Your task to perform on an android device: Show me recent news Image 0: 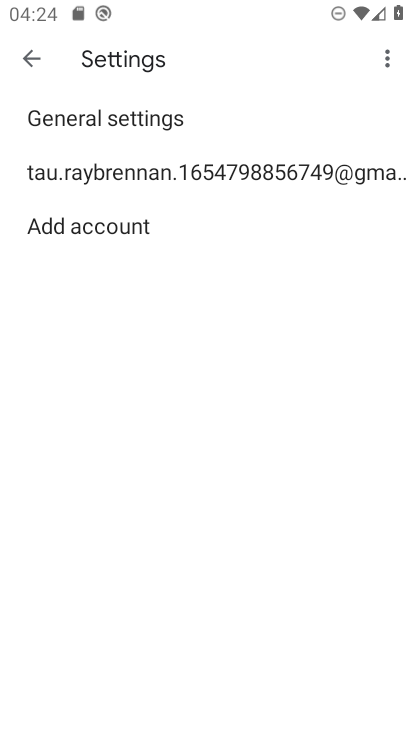
Step 0: press home button
Your task to perform on an android device: Show me recent news Image 1: 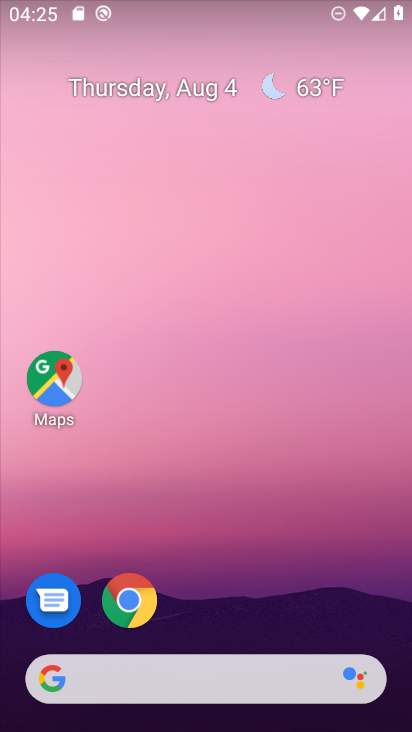
Step 1: drag from (287, 583) to (272, 96)
Your task to perform on an android device: Show me recent news Image 2: 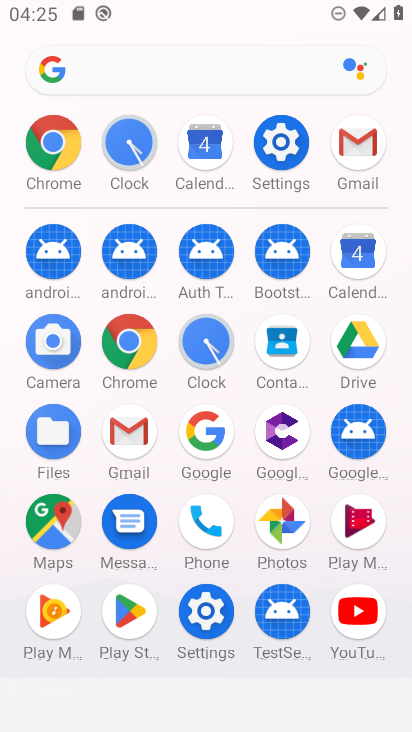
Step 2: click (118, 336)
Your task to perform on an android device: Show me recent news Image 3: 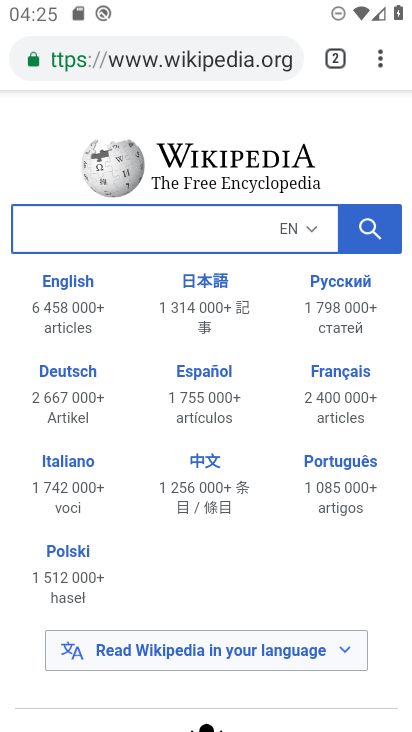
Step 3: click (211, 55)
Your task to perform on an android device: Show me recent news Image 4: 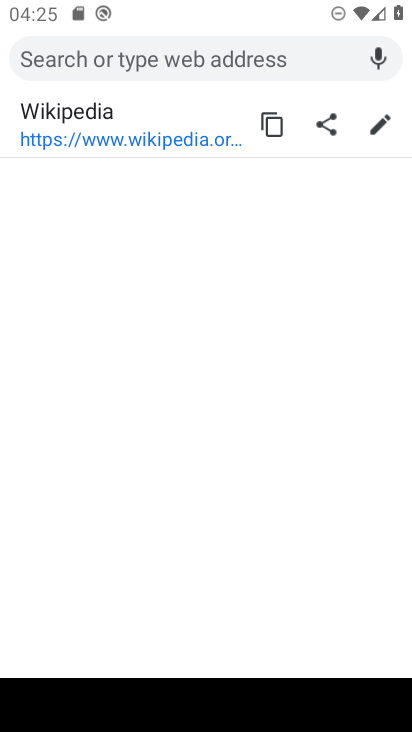
Step 4: type "news"
Your task to perform on an android device: Show me recent news Image 5: 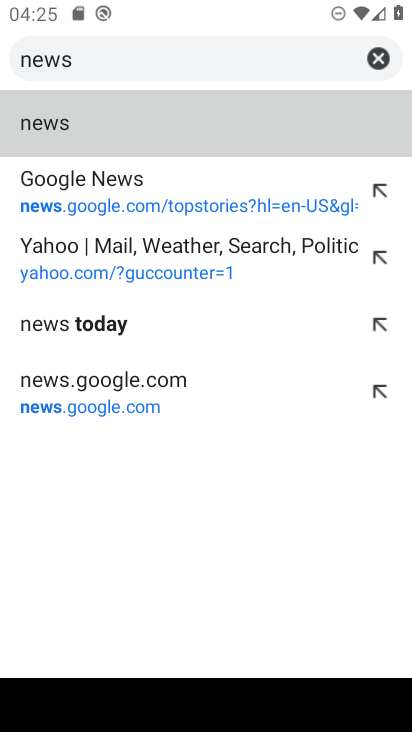
Step 5: click (61, 112)
Your task to perform on an android device: Show me recent news Image 6: 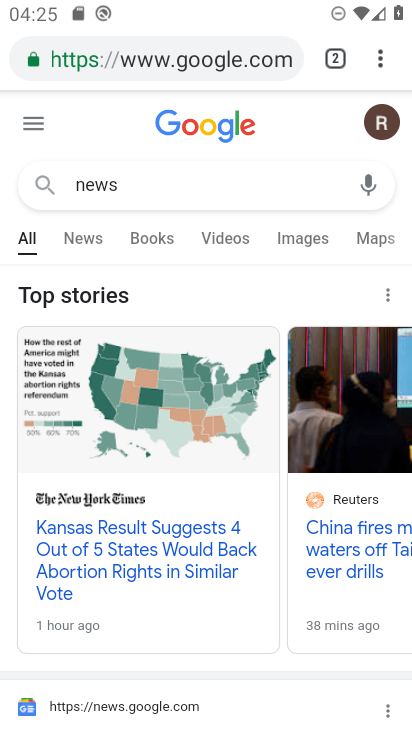
Step 6: click (85, 223)
Your task to perform on an android device: Show me recent news Image 7: 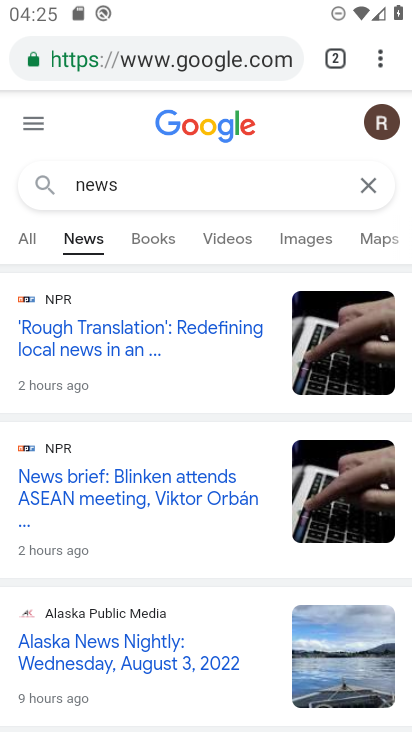
Step 7: task complete